Your task to perform on an android device: What's the weather going to be this weekend? Image 0: 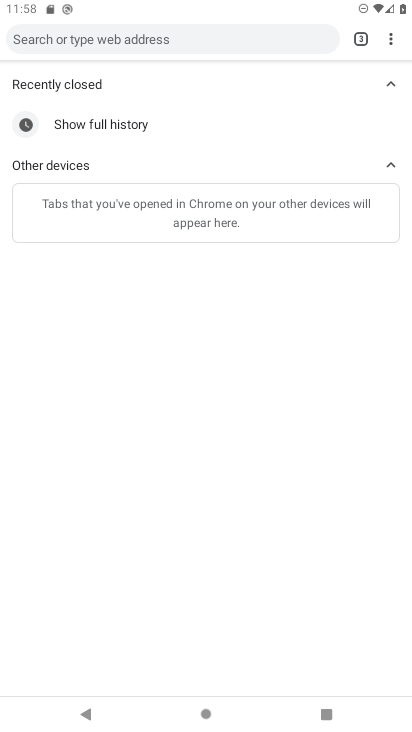
Step 0: press home button
Your task to perform on an android device: What's the weather going to be this weekend? Image 1: 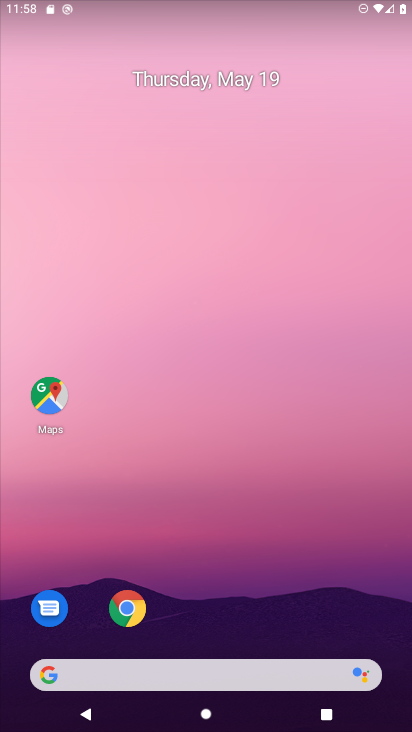
Step 1: click (116, 606)
Your task to perform on an android device: What's the weather going to be this weekend? Image 2: 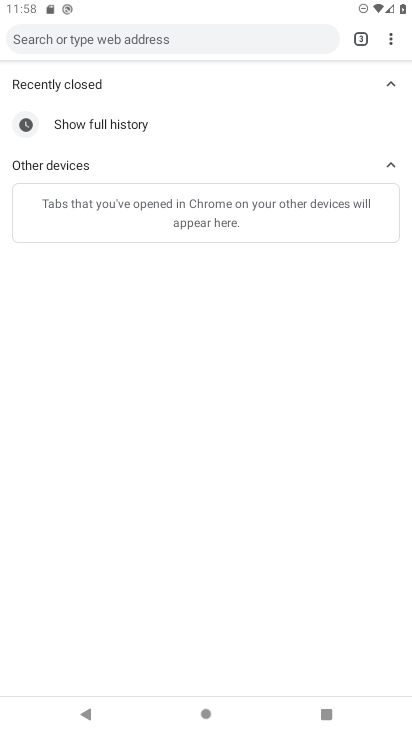
Step 2: click (247, 31)
Your task to perform on an android device: What's the weather going to be this weekend? Image 3: 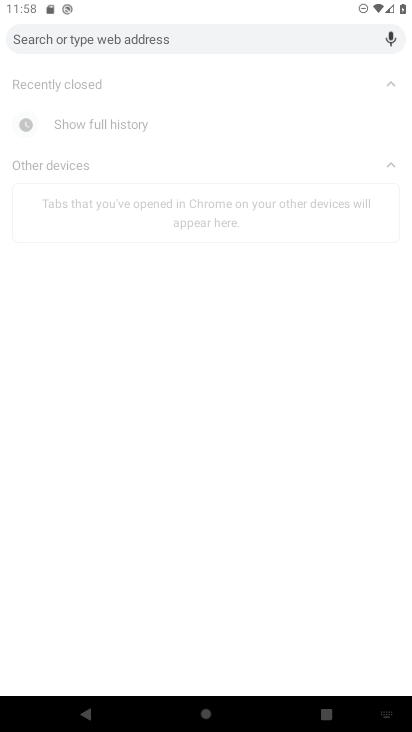
Step 3: type "What's the weather going to be this weekend?"
Your task to perform on an android device: What's the weather going to be this weekend? Image 4: 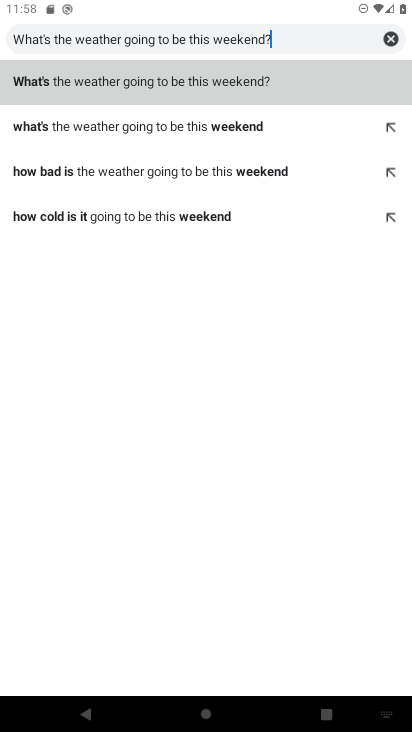
Step 4: click (115, 75)
Your task to perform on an android device: What's the weather going to be this weekend? Image 5: 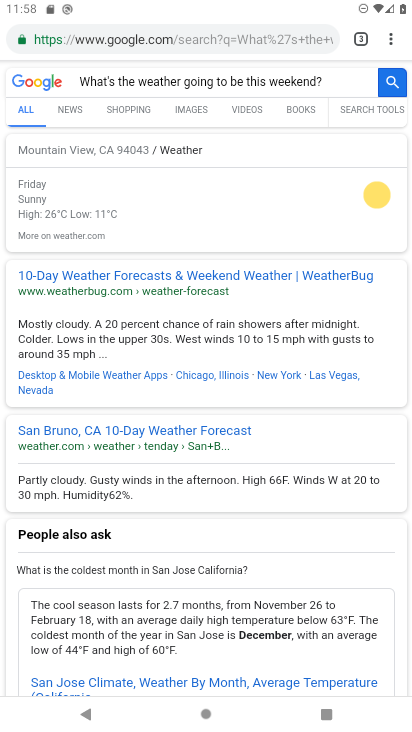
Step 5: task complete